Your task to perform on an android device: open app "Chime – Mobile Banking" Image 0: 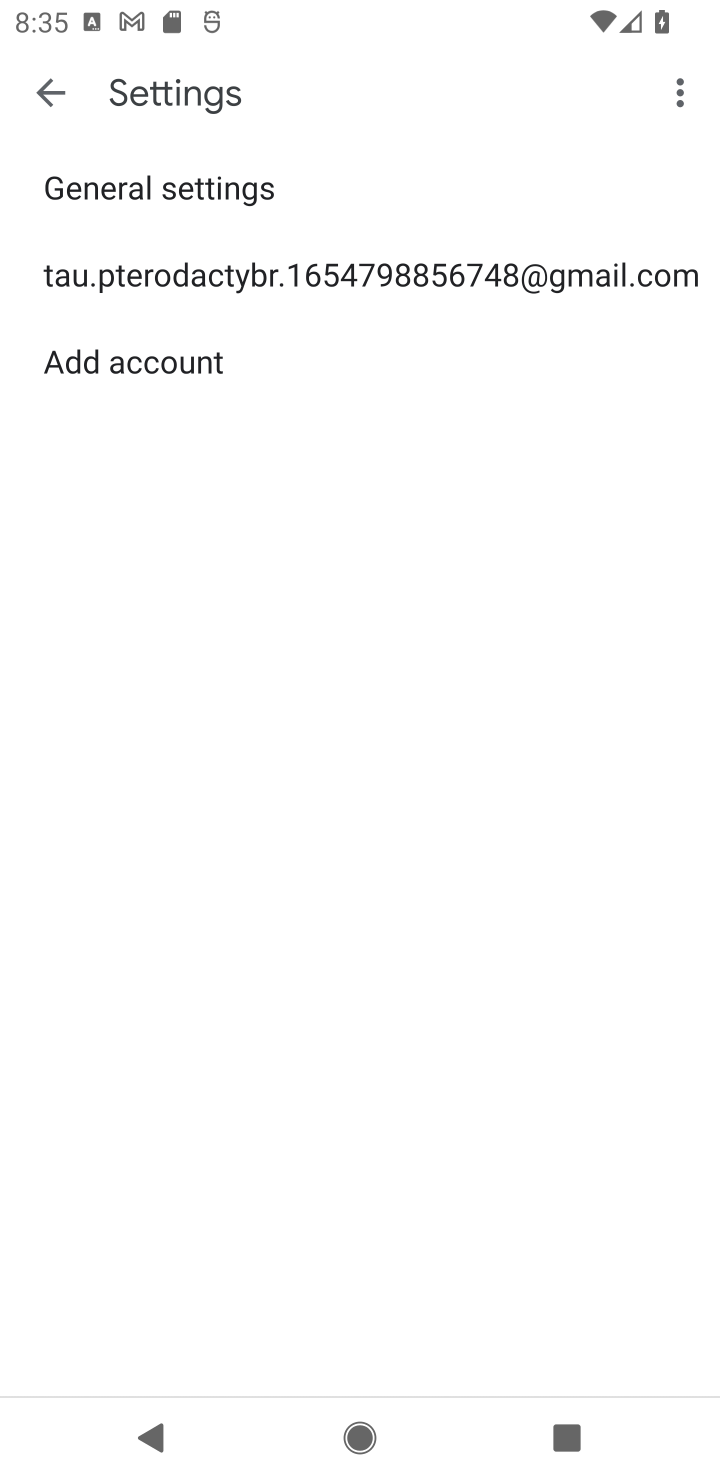
Step 0: press home button
Your task to perform on an android device: open app "Chime – Mobile Banking" Image 1: 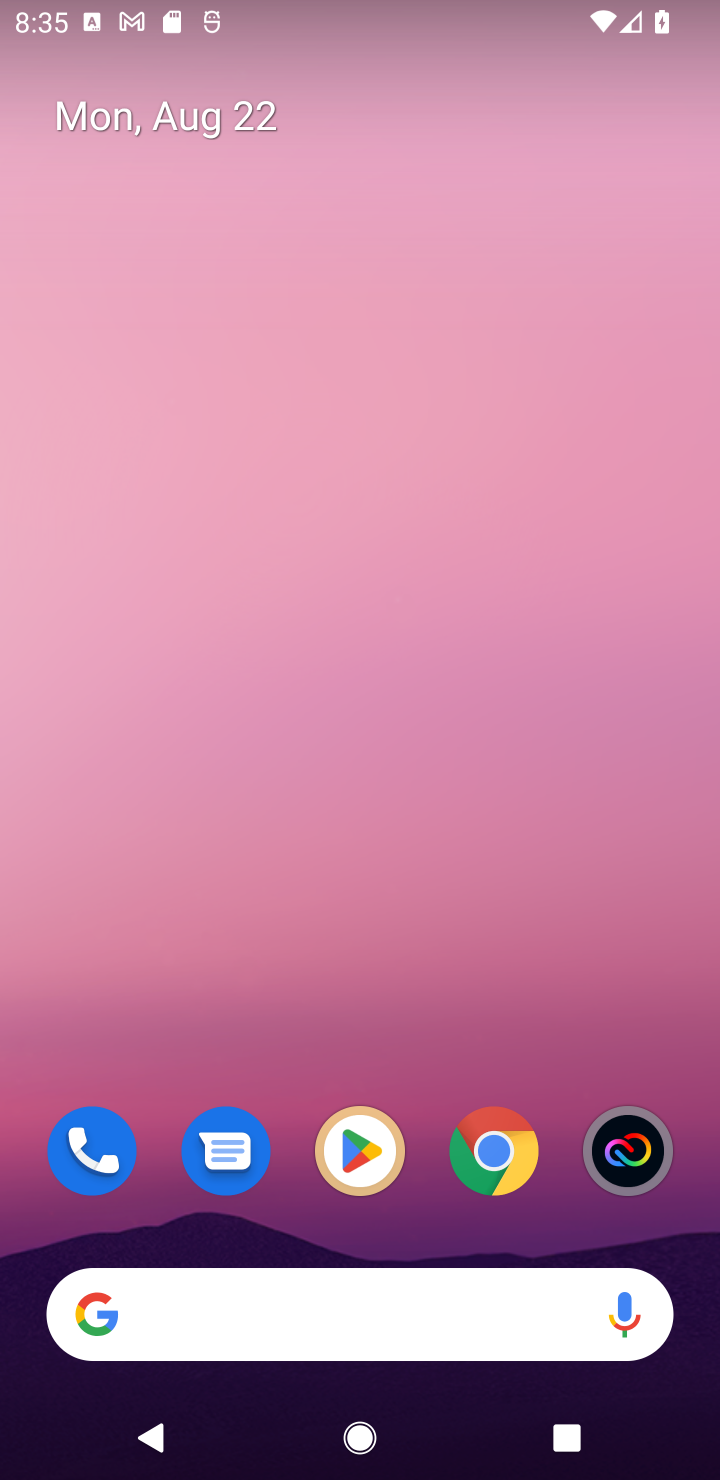
Step 1: click (357, 1148)
Your task to perform on an android device: open app "Chime – Mobile Banking" Image 2: 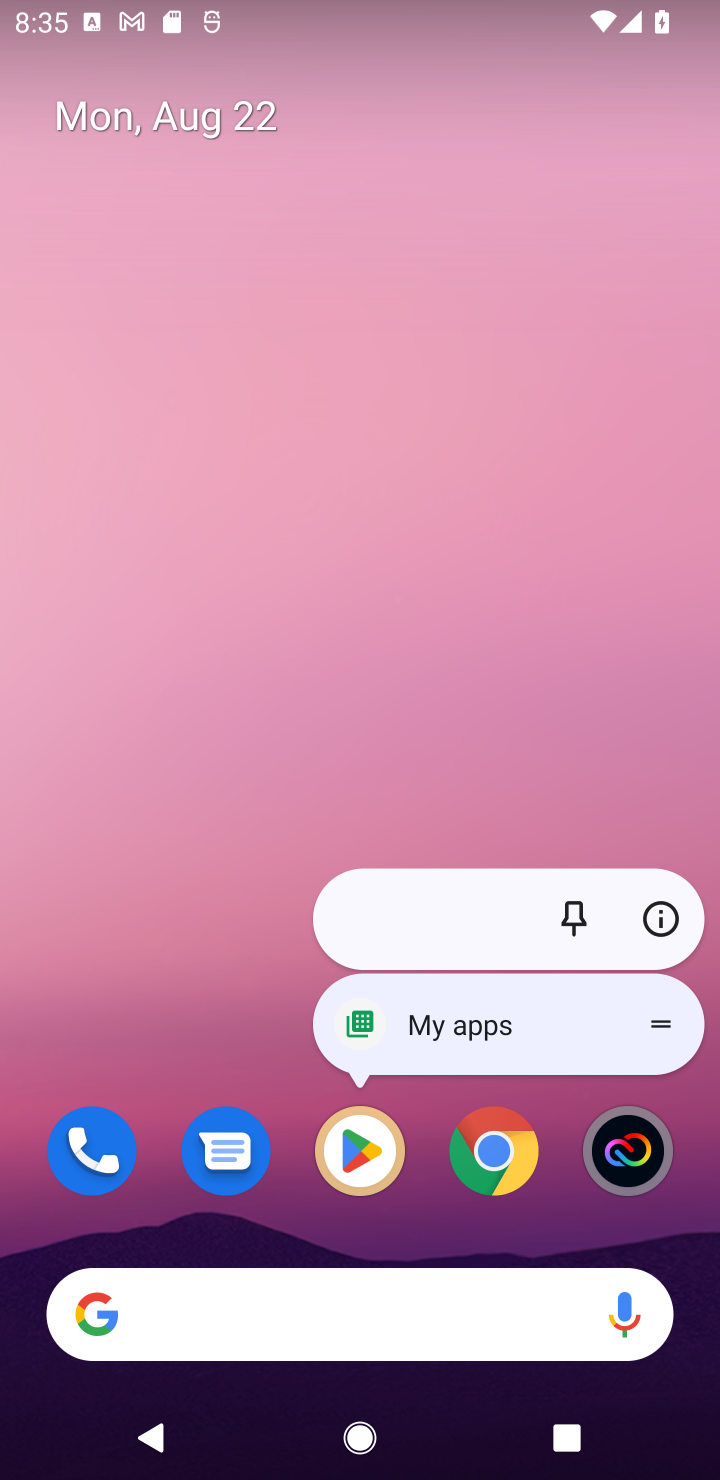
Step 2: click (352, 1155)
Your task to perform on an android device: open app "Chime – Mobile Banking" Image 3: 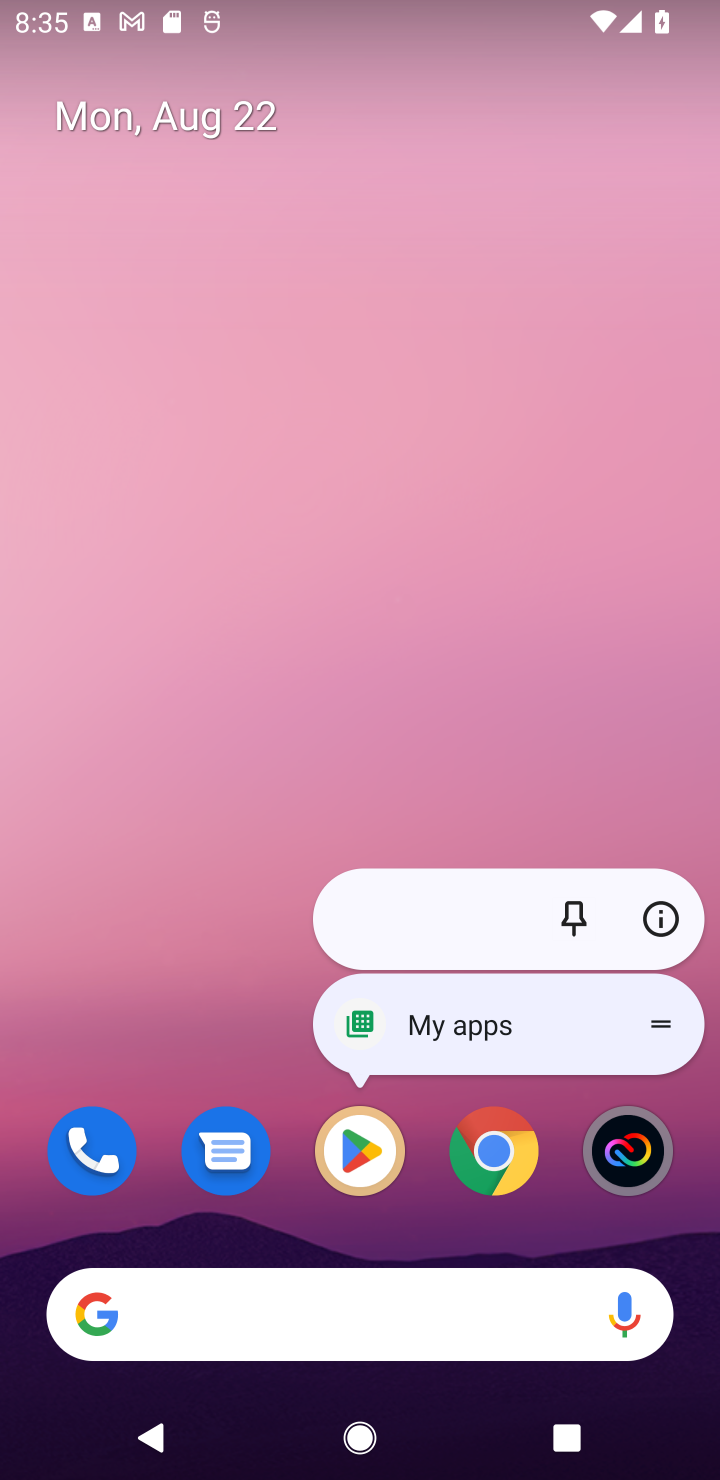
Step 3: click (352, 1162)
Your task to perform on an android device: open app "Chime – Mobile Banking" Image 4: 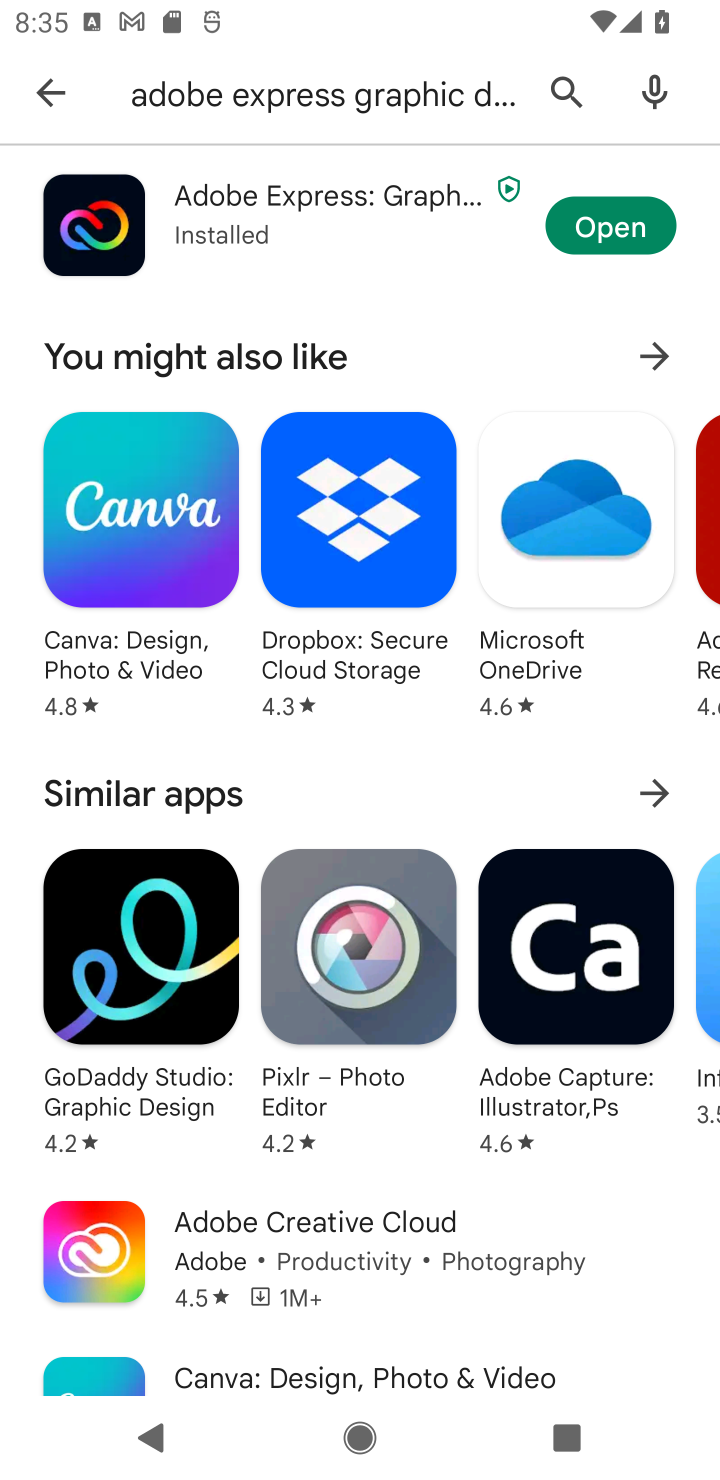
Step 4: click (552, 83)
Your task to perform on an android device: open app "Chime – Mobile Banking" Image 5: 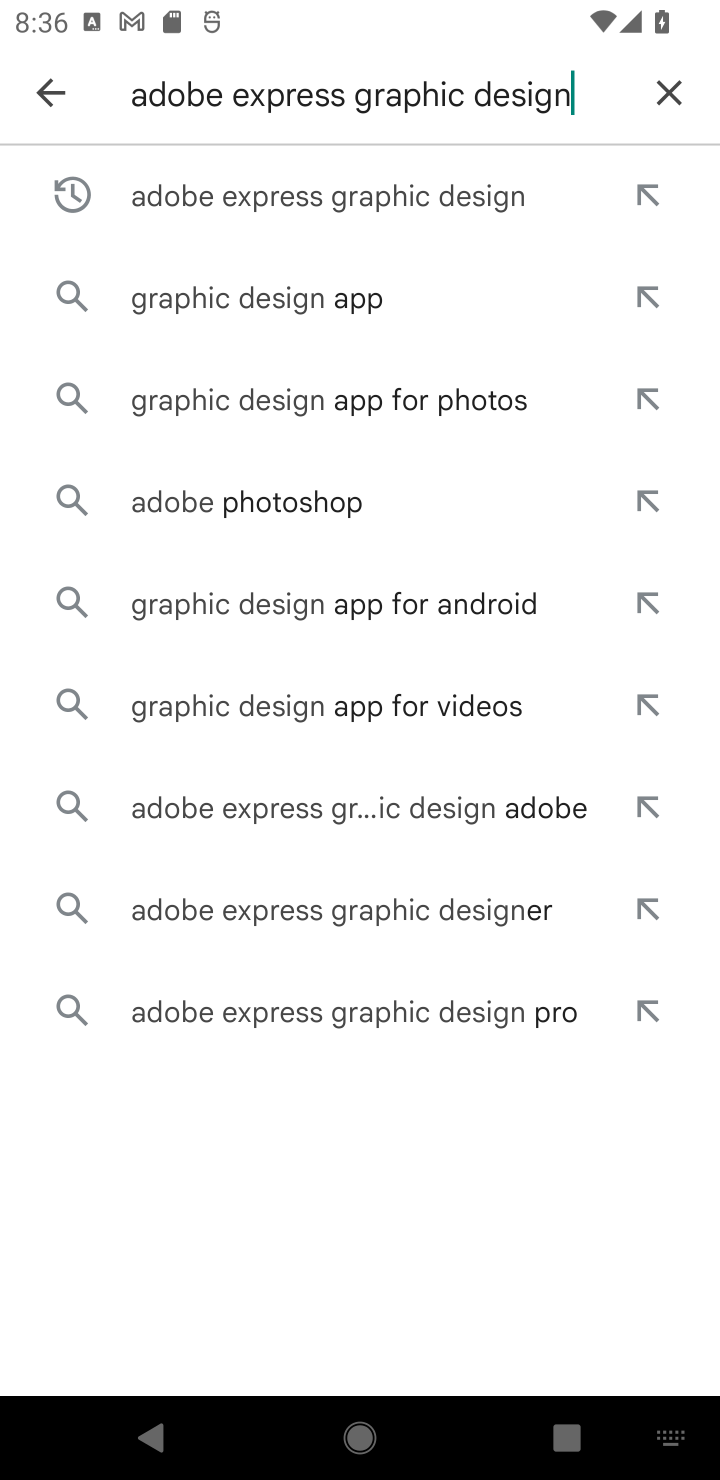
Step 5: click (665, 73)
Your task to perform on an android device: open app "Chime – Mobile Banking" Image 6: 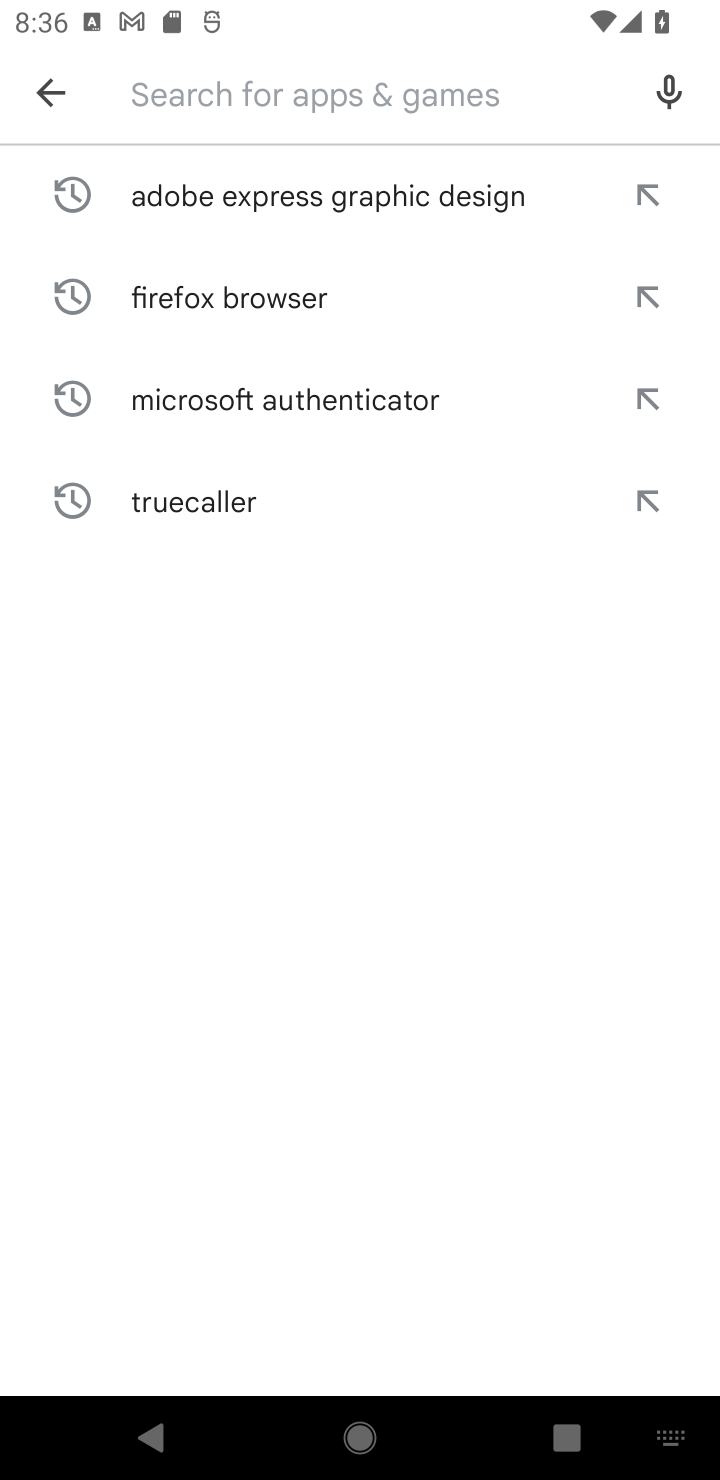
Step 6: type "Chime Mobile Banking"
Your task to perform on an android device: open app "Chime – Mobile Banking" Image 7: 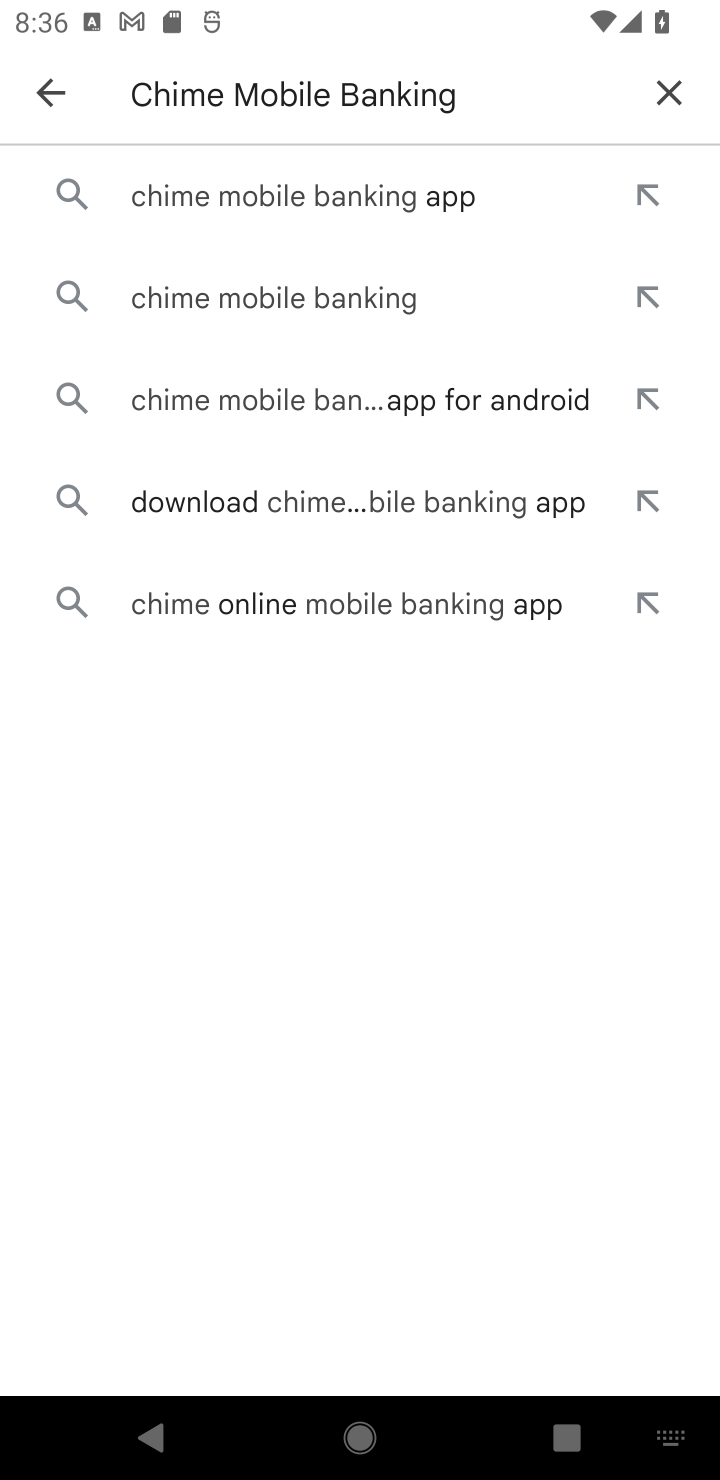
Step 7: click (316, 178)
Your task to perform on an android device: open app "Chime – Mobile Banking" Image 8: 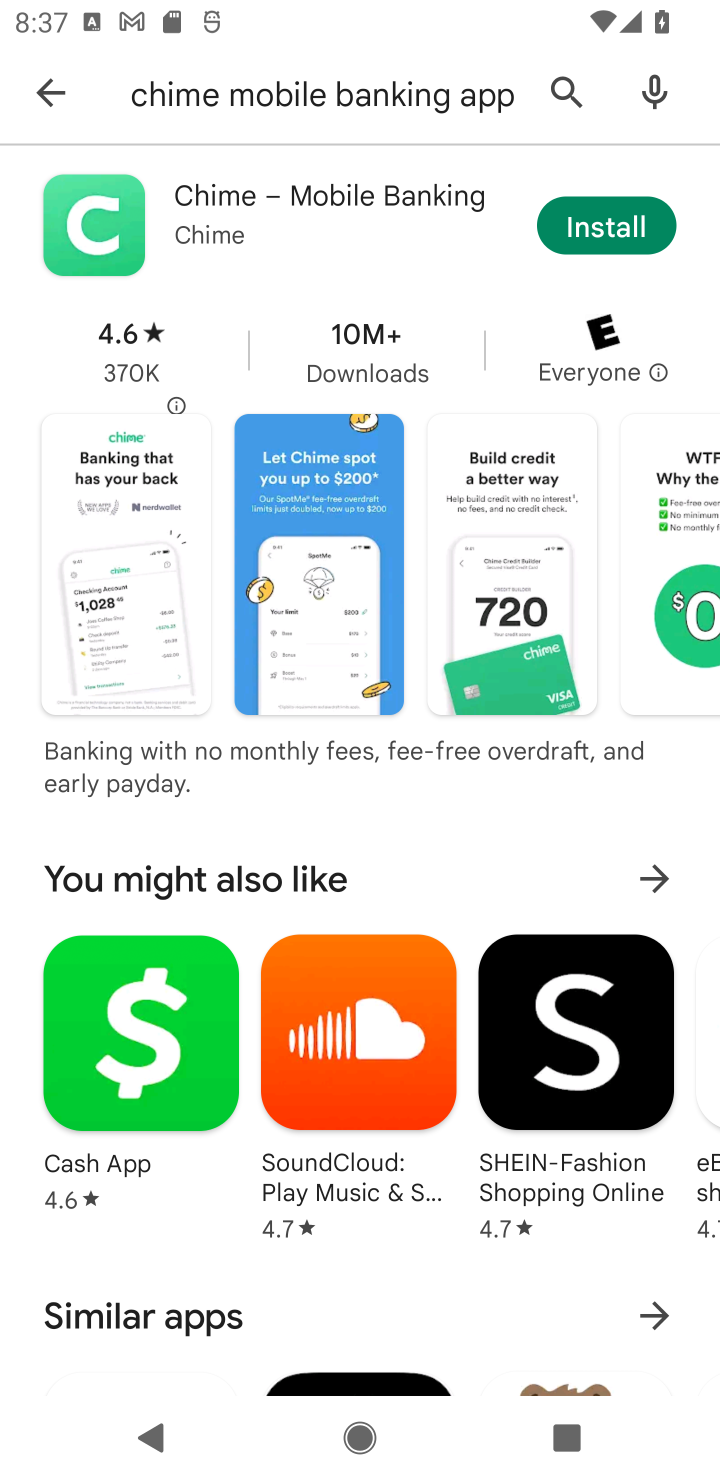
Step 8: task complete